Your task to perform on an android device: Find coffee shops on Maps Image 0: 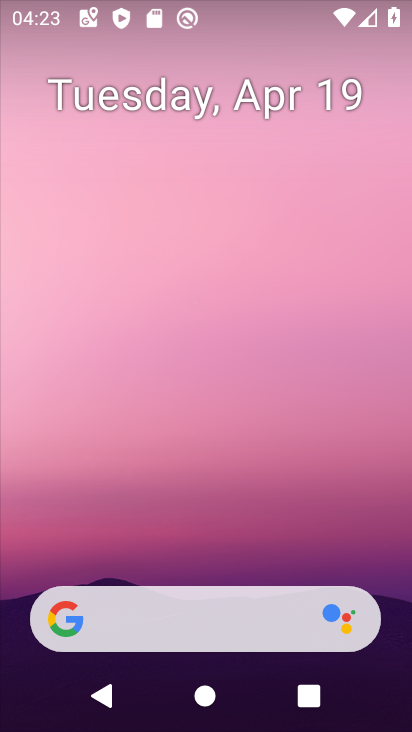
Step 0: drag from (217, 501) to (278, 90)
Your task to perform on an android device: Find coffee shops on Maps Image 1: 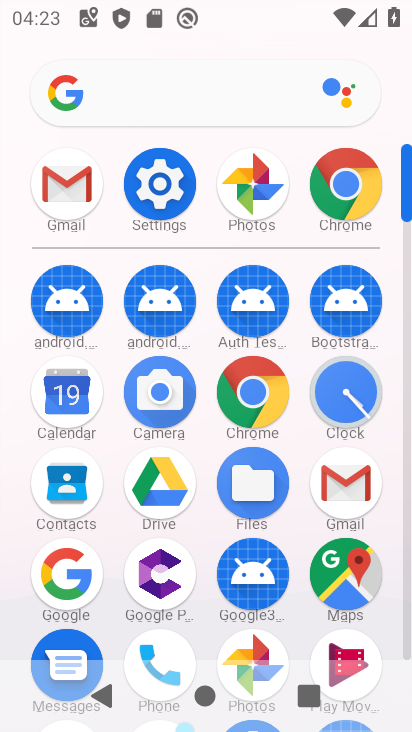
Step 1: drag from (297, 454) to (320, 308)
Your task to perform on an android device: Find coffee shops on Maps Image 2: 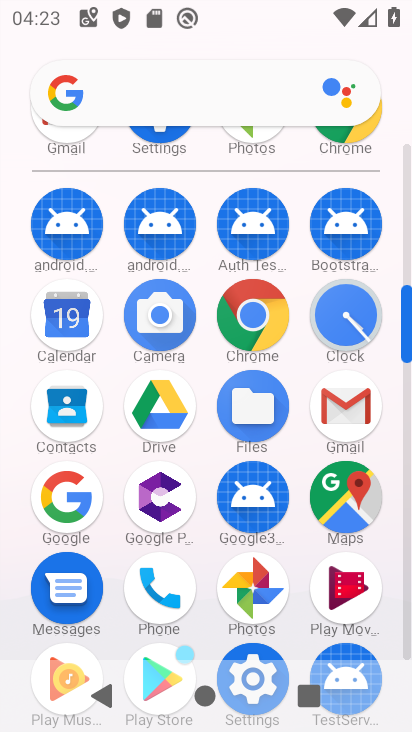
Step 2: click (343, 505)
Your task to perform on an android device: Find coffee shops on Maps Image 3: 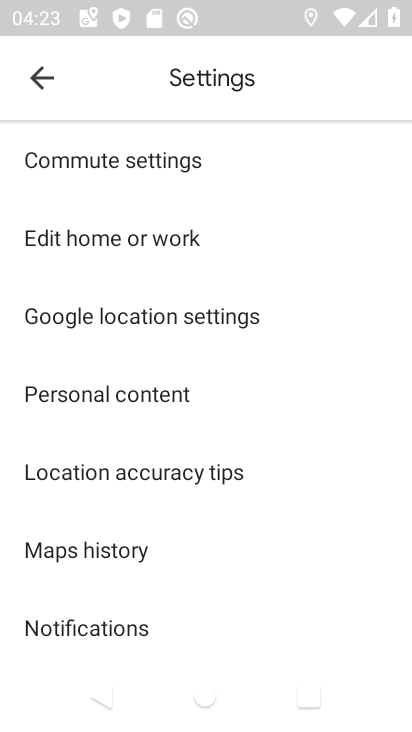
Step 3: press back button
Your task to perform on an android device: Find coffee shops on Maps Image 4: 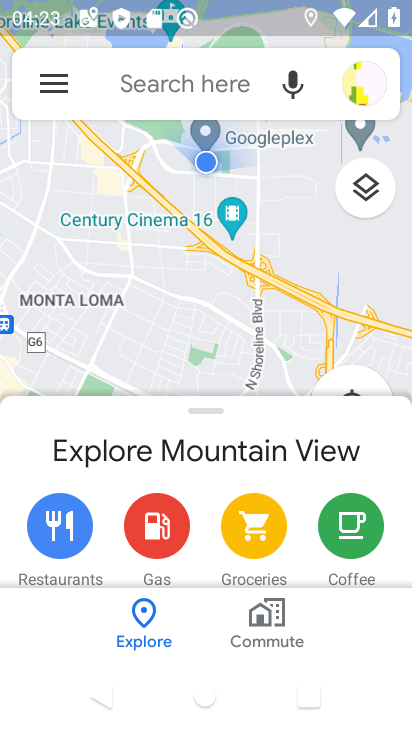
Step 4: click (215, 98)
Your task to perform on an android device: Find coffee shops on Maps Image 5: 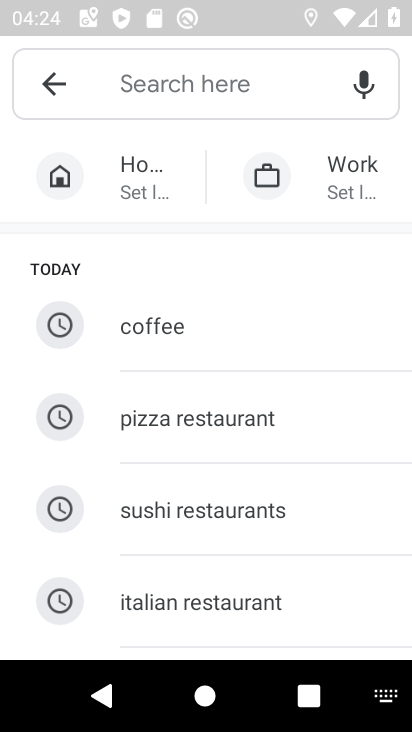
Step 5: type "coffee shops"
Your task to perform on an android device: Find coffee shops on Maps Image 6: 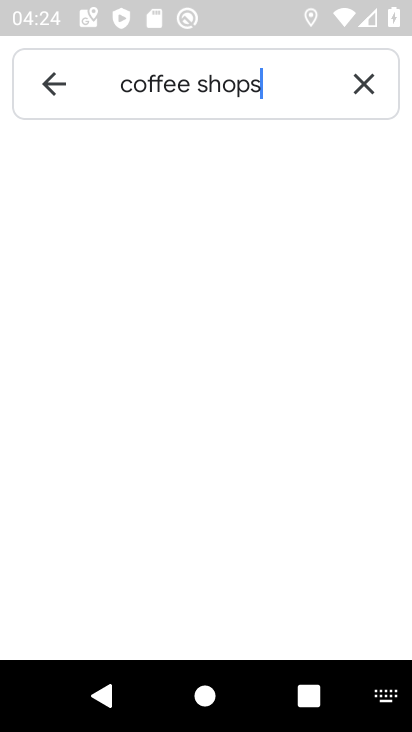
Step 6: type ""
Your task to perform on an android device: Find coffee shops on Maps Image 7: 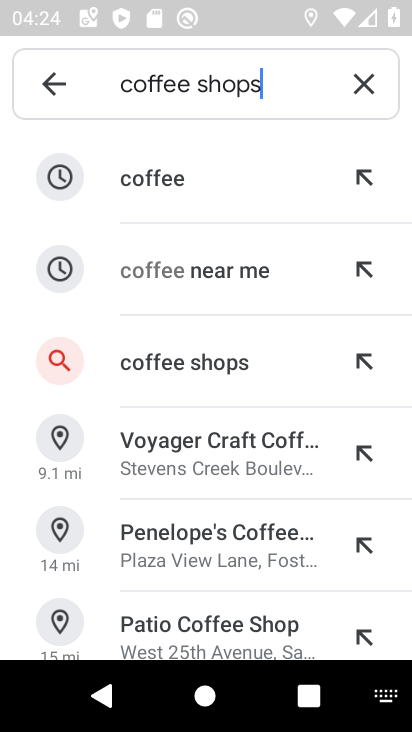
Step 7: click (188, 369)
Your task to perform on an android device: Find coffee shops on Maps Image 8: 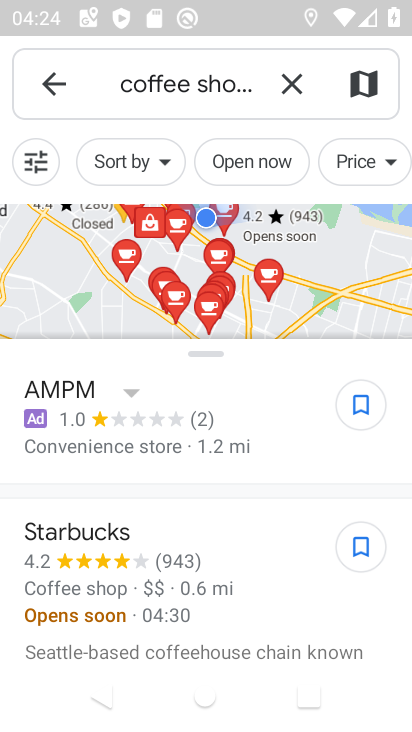
Step 8: task complete